Your task to perform on an android device: all mails in gmail Image 0: 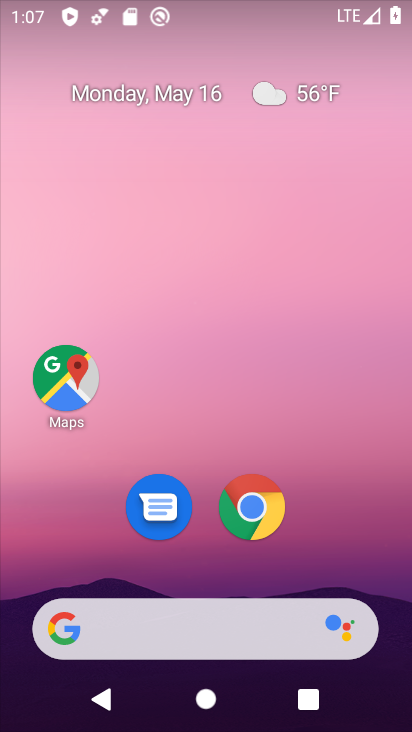
Step 0: drag from (301, 187) to (360, 30)
Your task to perform on an android device: all mails in gmail Image 1: 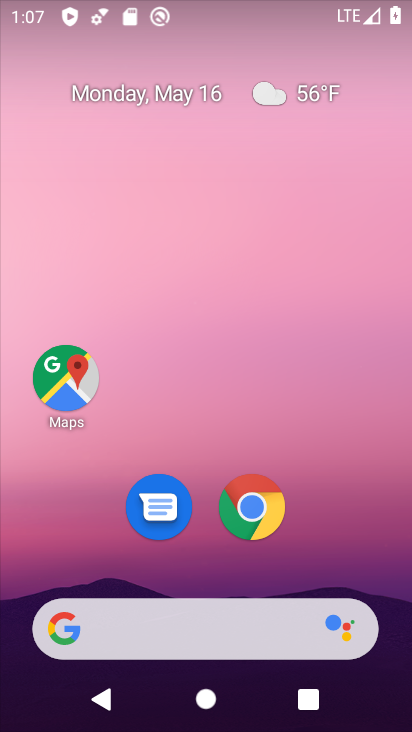
Step 1: drag from (211, 573) to (219, 119)
Your task to perform on an android device: all mails in gmail Image 2: 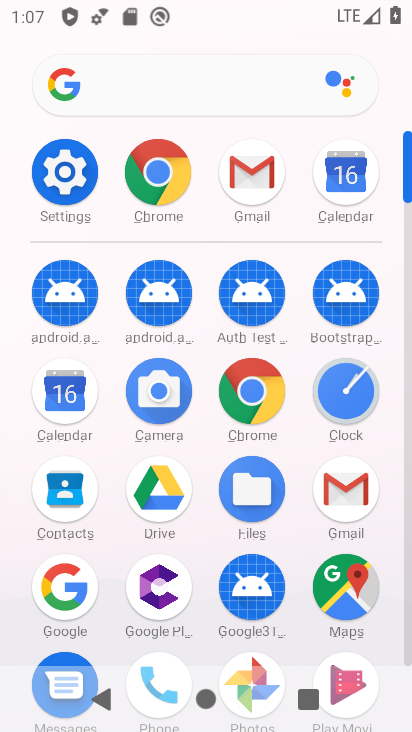
Step 2: click (256, 183)
Your task to perform on an android device: all mails in gmail Image 3: 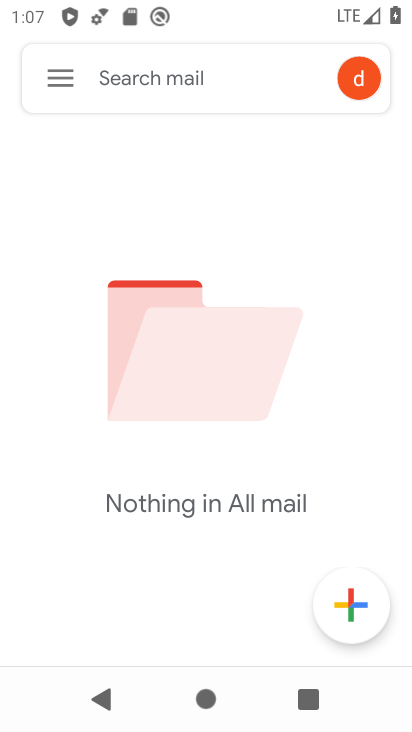
Step 3: task complete